Your task to perform on an android device: toggle improve location accuracy Image 0: 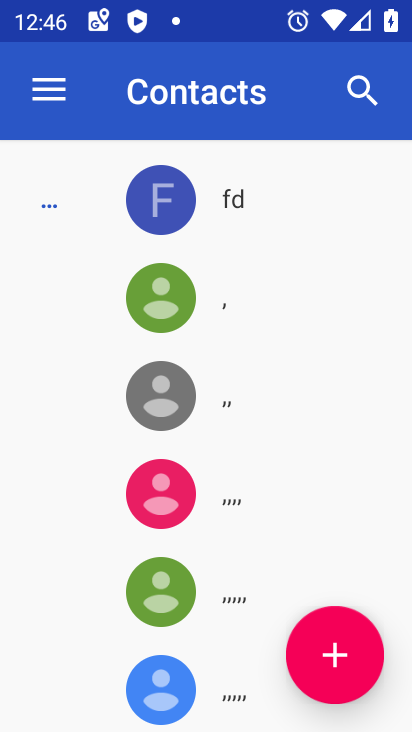
Step 0: press home button
Your task to perform on an android device: toggle improve location accuracy Image 1: 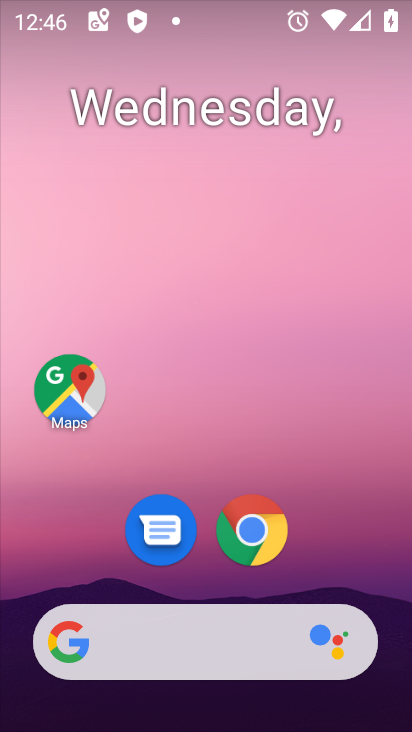
Step 1: drag from (219, 588) to (232, 241)
Your task to perform on an android device: toggle improve location accuracy Image 2: 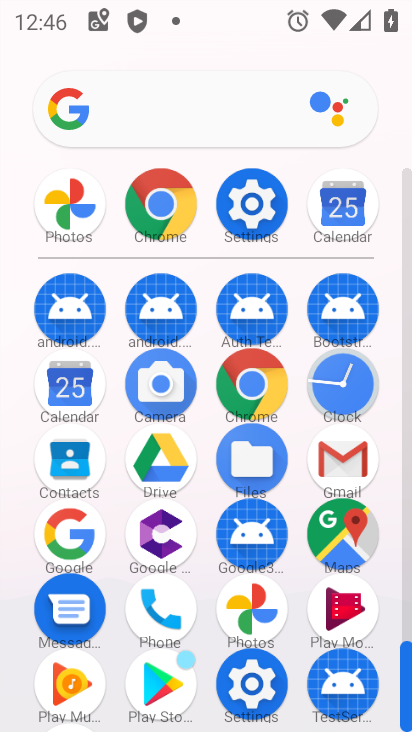
Step 2: click (248, 206)
Your task to perform on an android device: toggle improve location accuracy Image 3: 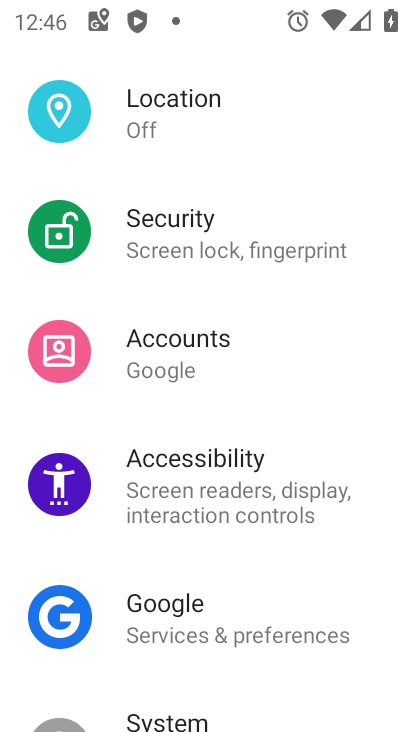
Step 3: drag from (177, 513) to (176, 128)
Your task to perform on an android device: toggle improve location accuracy Image 4: 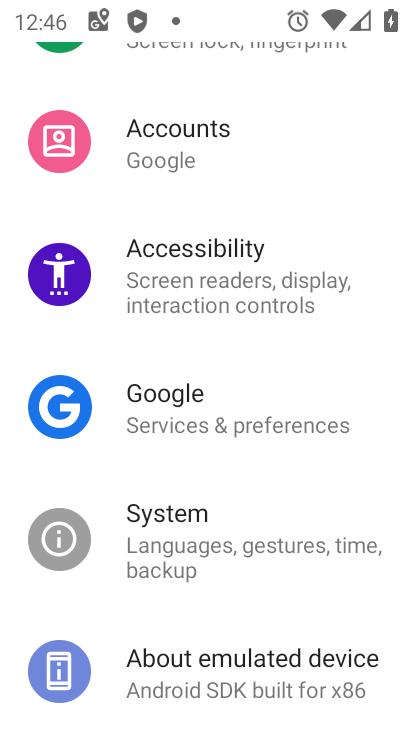
Step 4: drag from (223, 194) to (263, 682)
Your task to perform on an android device: toggle improve location accuracy Image 5: 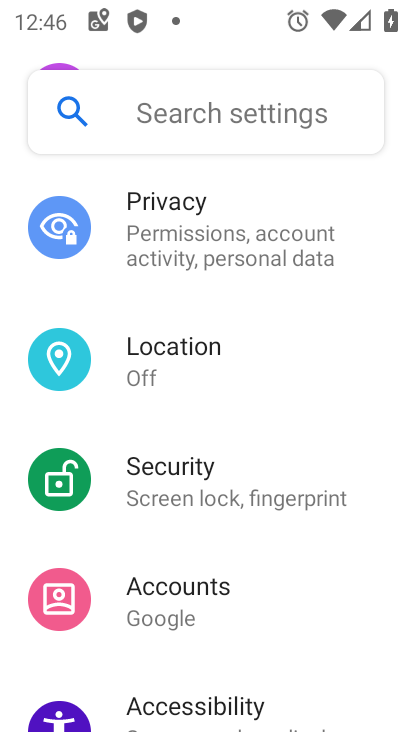
Step 5: click (177, 372)
Your task to perform on an android device: toggle improve location accuracy Image 6: 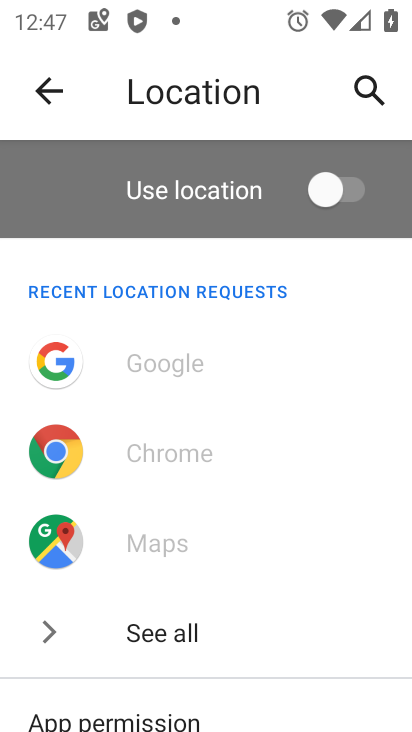
Step 6: drag from (176, 659) to (227, 187)
Your task to perform on an android device: toggle improve location accuracy Image 7: 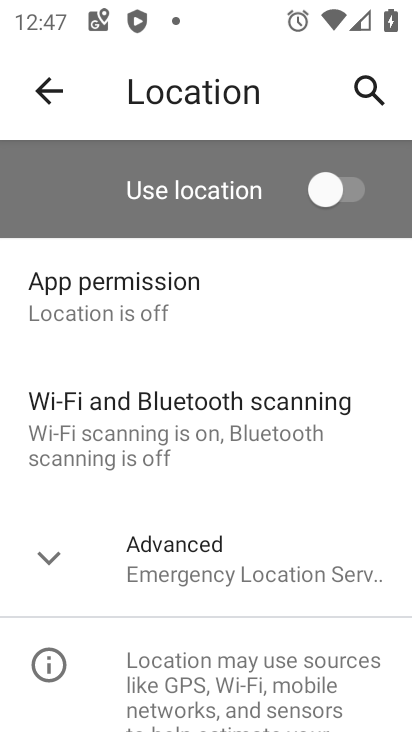
Step 7: click (58, 562)
Your task to perform on an android device: toggle improve location accuracy Image 8: 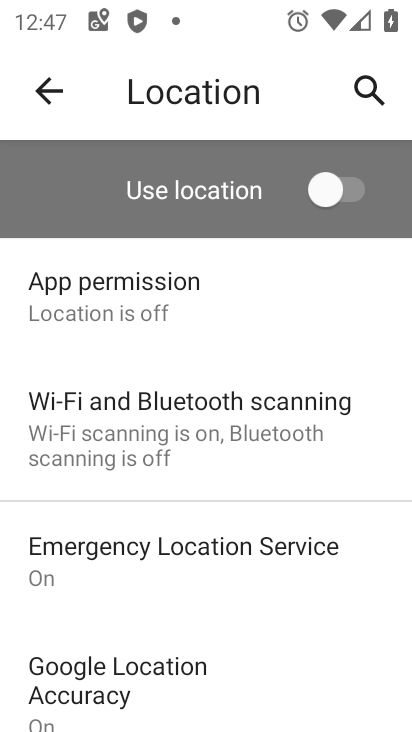
Step 8: drag from (140, 636) to (202, 239)
Your task to perform on an android device: toggle improve location accuracy Image 9: 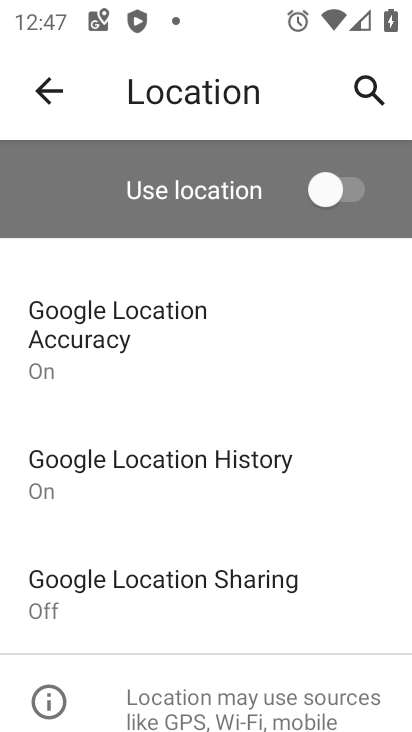
Step 9: click (97, 330)
Your task to perform on an android device: toggle improve location accuracy Image 10: 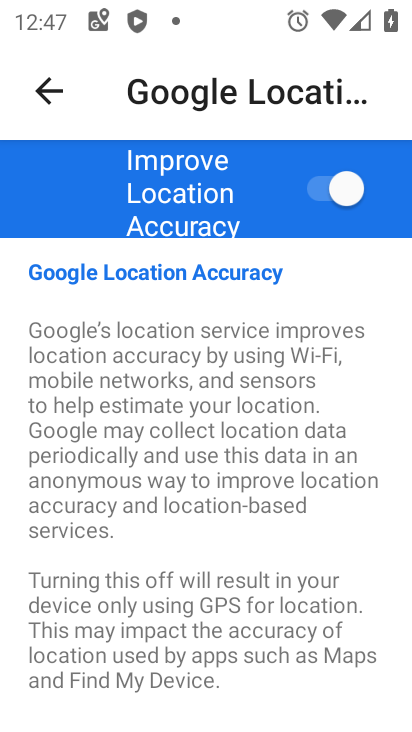
Step 10: task complete